Your task to perform on an android device: Is it going to rain tomorrow? Image 0: 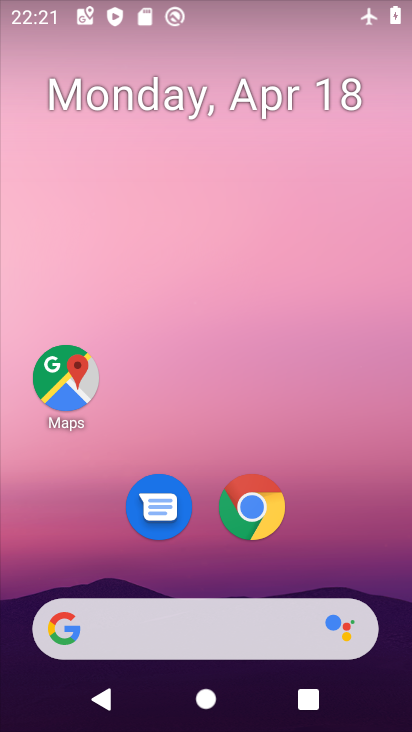
Step 0: drag from (51, 246) to (387, 229)
Your task to perform on an android device: Is it going to rain tomorrow? Image 1: 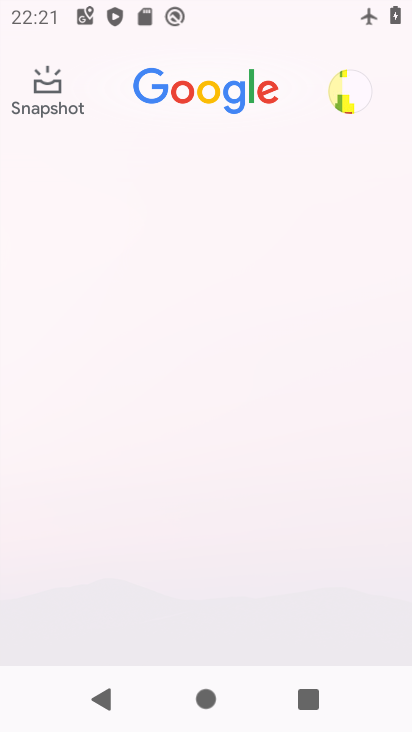
Step 1: task complete